Your task to perform on an android device: Go to notification settings Image 0: 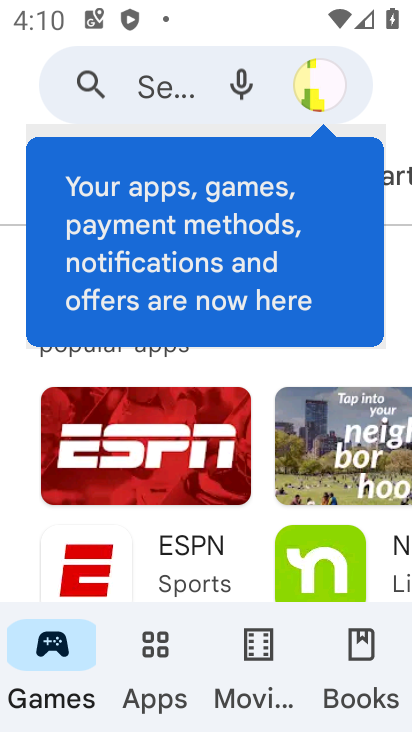
Step 0: press home button
Your task to perform on an android device: Go to notification settings Image 1: 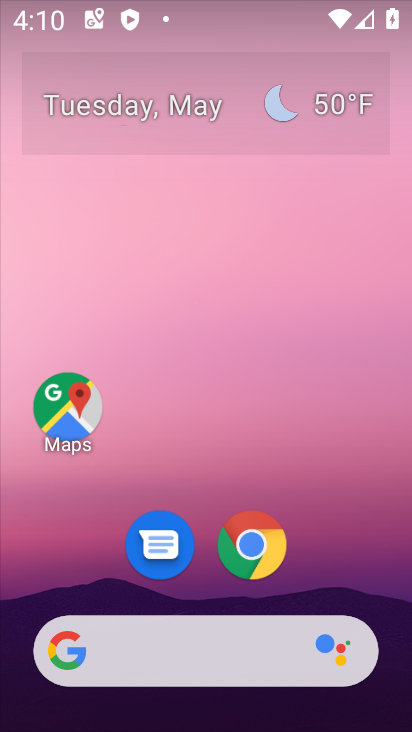
Step 1: drag from (215, 586) to (351, 4)
Your task to perform on an android device: Go to notification settings Image 2: 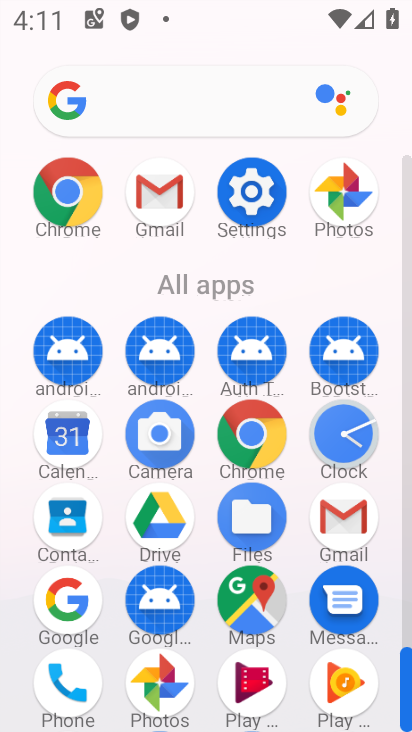
Step 2: click (274, 196)
Your task to perform on an android device: Go to notification settings Image 3: 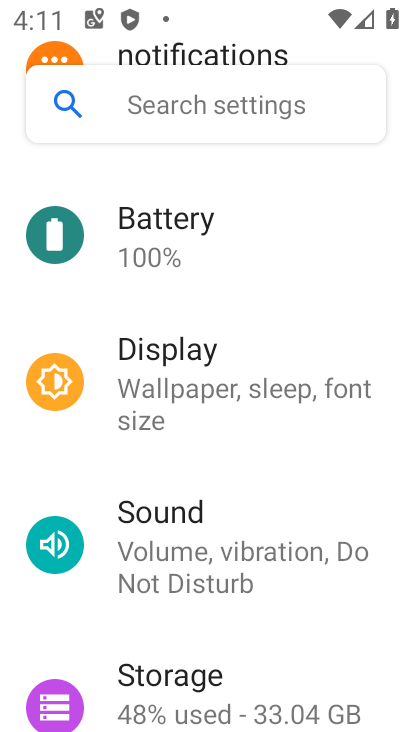
Step 3: drag from (220, 598) to (255, 664)
Your task to perform on an android device: Go to notification settings Image 4: 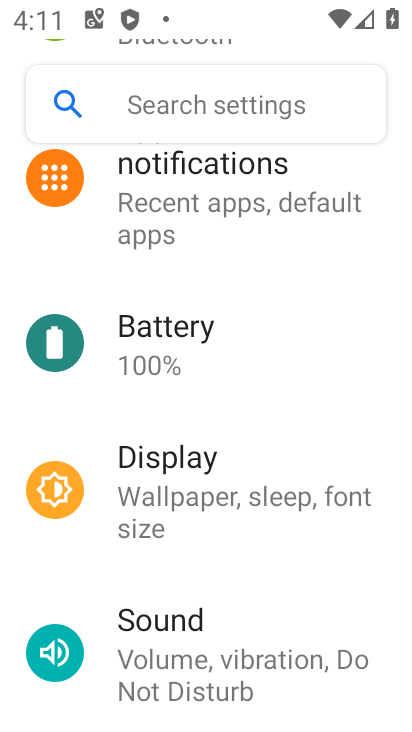
Step 4: drag from (316, 233) to (315, 442)
Your task to perform on an android device: Go to notification settings Image 5: 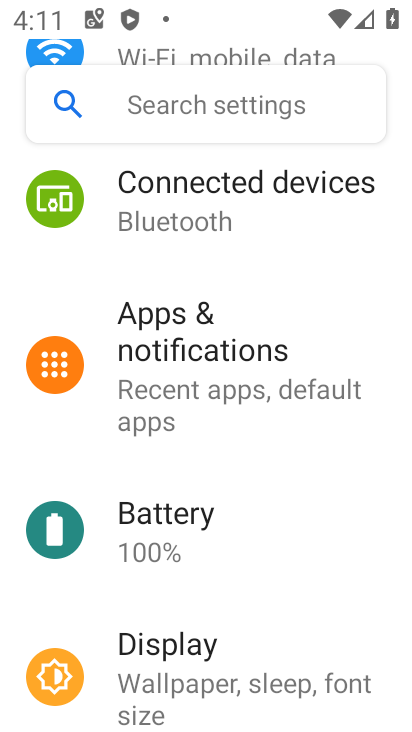
Step 5: click (219, 383)
Your task to perform on an android device: Go to notification settings Image 6: 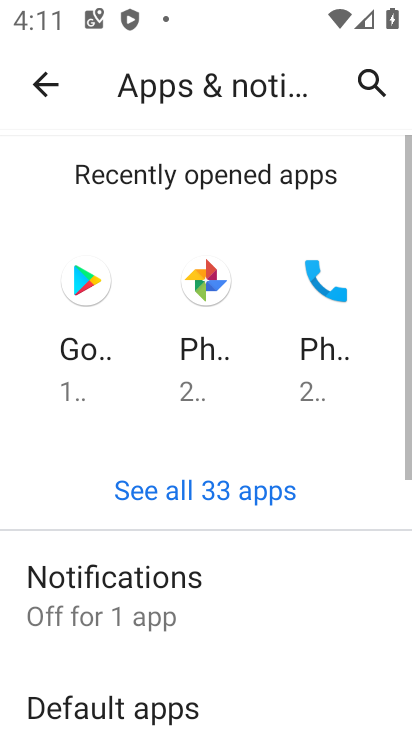
Step 6: drag from (188, 607) to (204, 528)
Your task to perform on an android device: Go to notification settings Image 7: 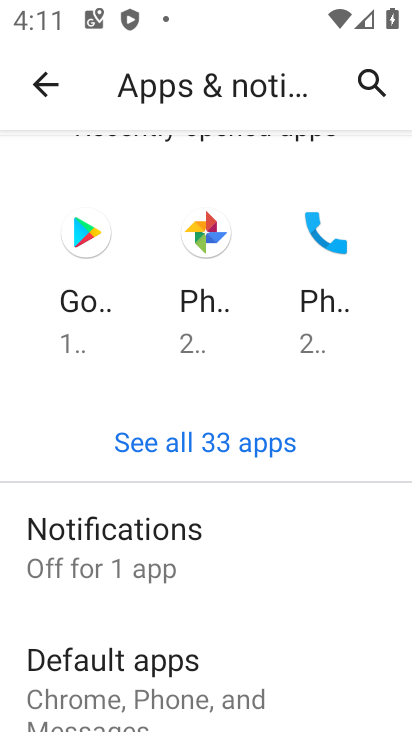
Step 7: click (141, 570)
Your task to perform on an android device: Go to notification settings Image 8: 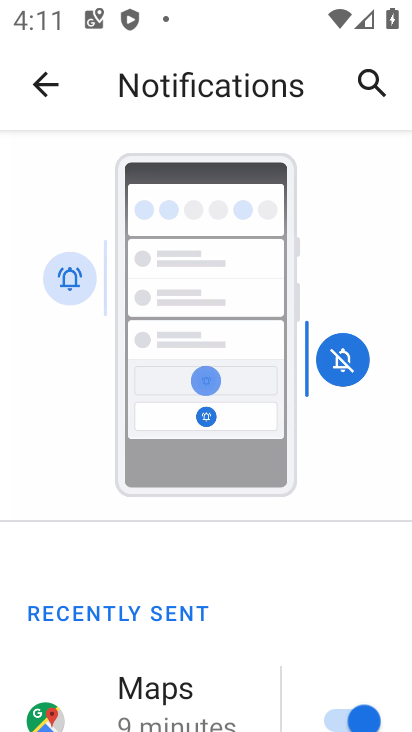
Step 8: task complete